Your task to perform on an android device: turn notification dots on Image 0: 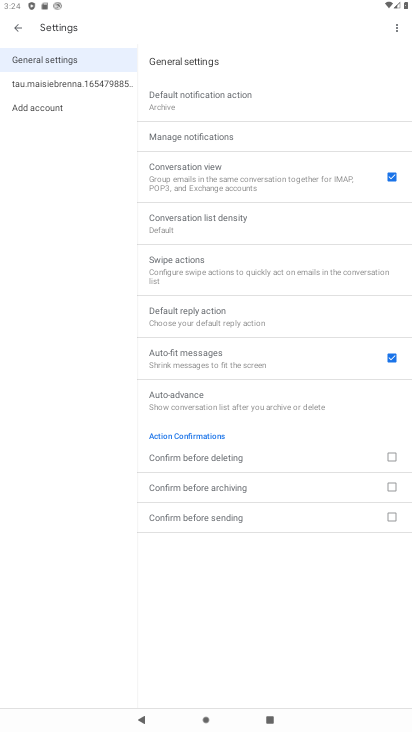
Step 0: press home button
Your task to perform on an android device: turn notification dots on Image 1: 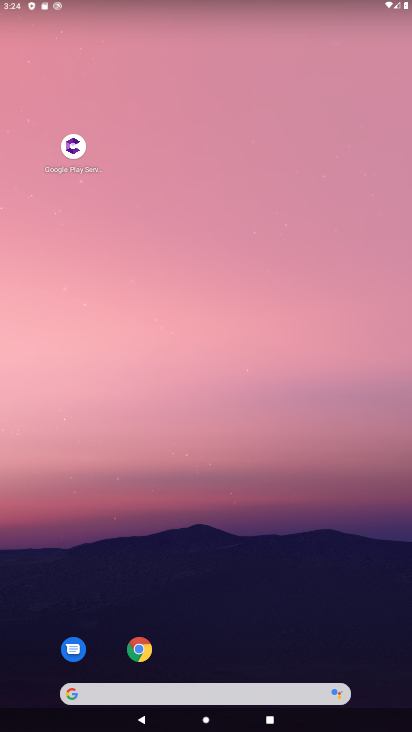
Step 1: drag from (209, 691) to (240, 348)
Your task to perform on an android device: turn notification dots on Image 2: 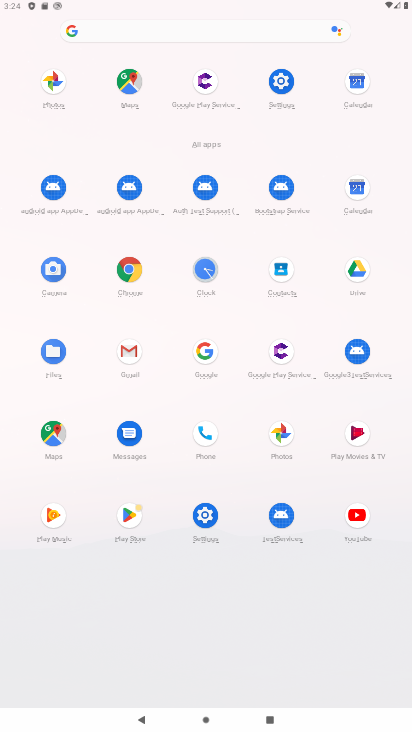
Step 2: click (282, 81)
Your task to perform on an android device: turn notification dots on Image 3: 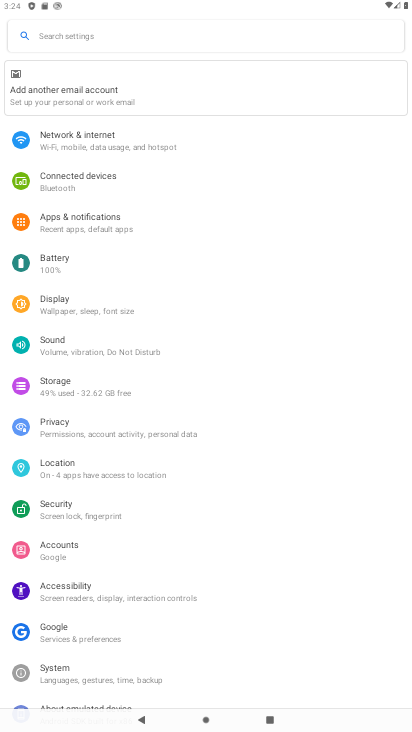
Step 3: click (82, 219)
Your task to perform on an android device: turn notification dots on Image 4: 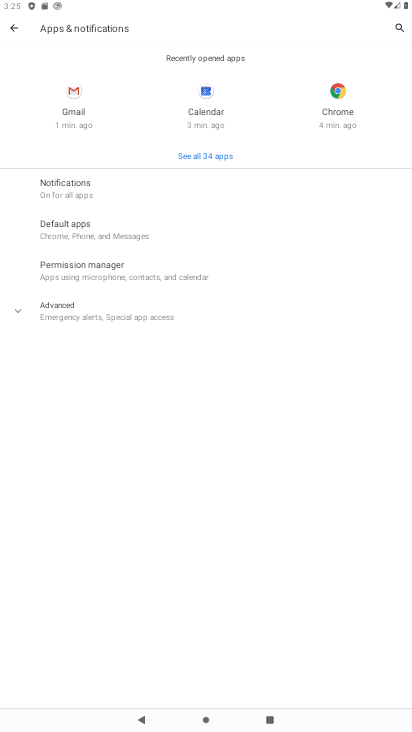
Step 4: click (72, 188)
Your task to perform on an android device: turn notification dots on Image 5: 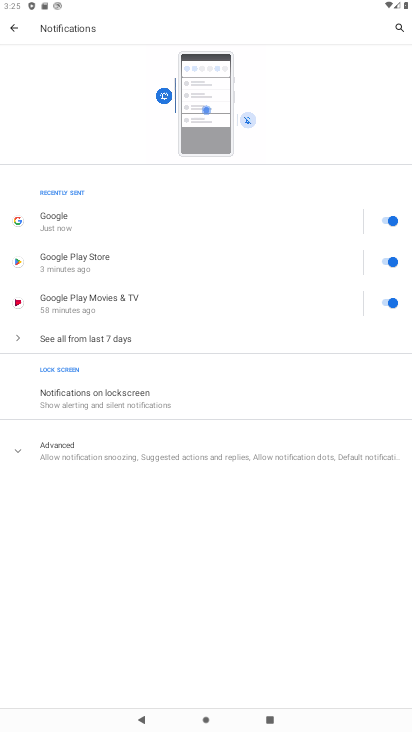
Step 5: click (120, 454)
Your task to perform on an android device: turn notification dots on Image 6: 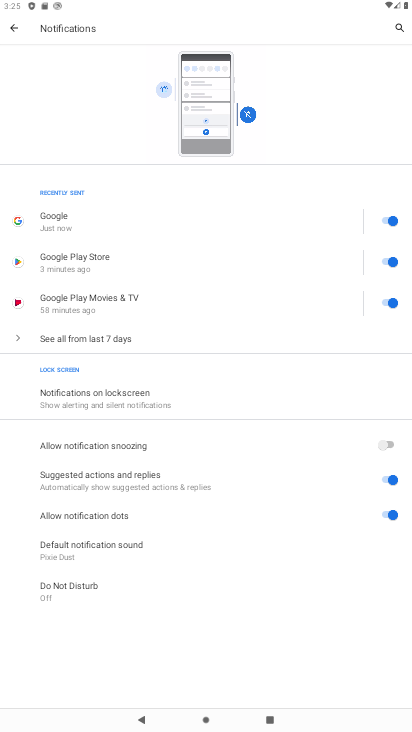
Step 6: task complete